Your task to perform on an android device: turn on javascript in the chrome app Image 0: 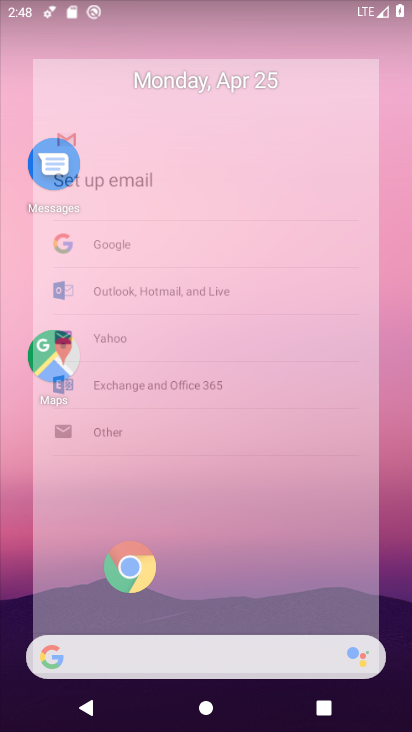
Step 0: drag from (238, 580) to (270, 323)
Your task to perform on an android device: turn on javascript in the chrome app Image 1: 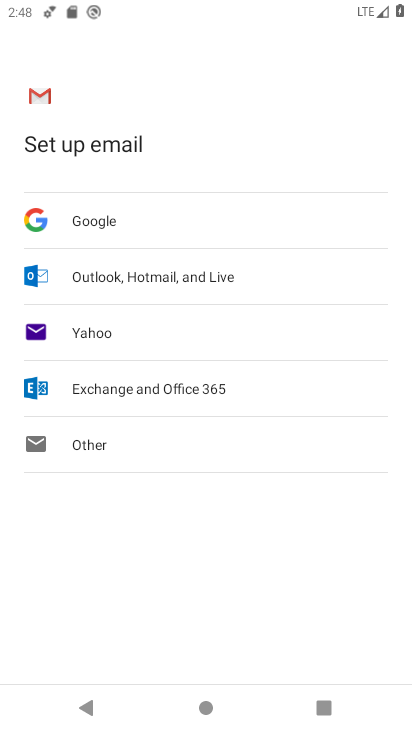
Step 1: press home button
Your task to perform on an android device: turn on javascript in the chrome app Image 2: 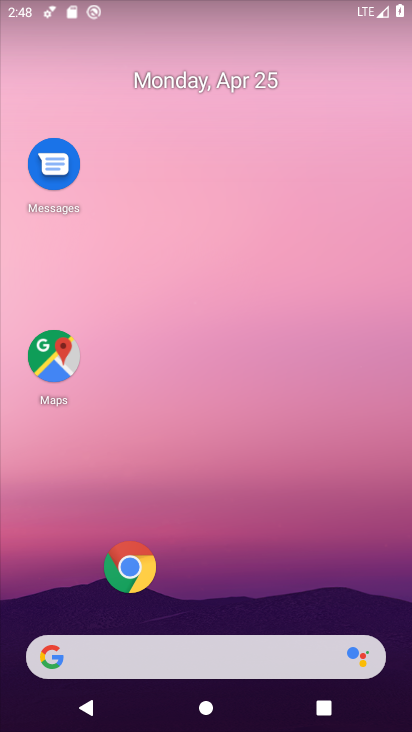
Step 2: drag from (260, 574) to (381, 258)
Your task to perform on an android device: turn on javascript in the chrome app Image 3: 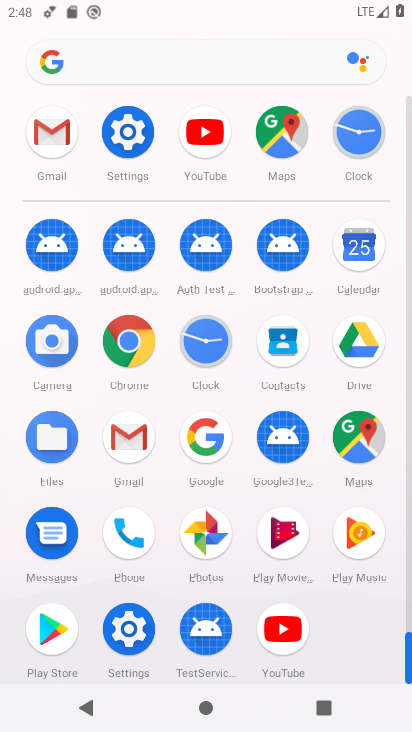
Step 3: click (123, 370)
Your task to perform on an android device: turn on javascript in the chrome app Image 4: 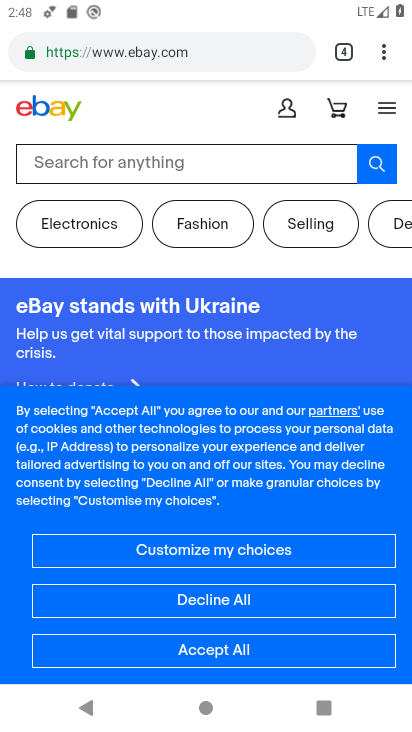
Step 4: click (381, 71)
Your task to perform on an android device: turn on javascript in the chrome app Image 5: 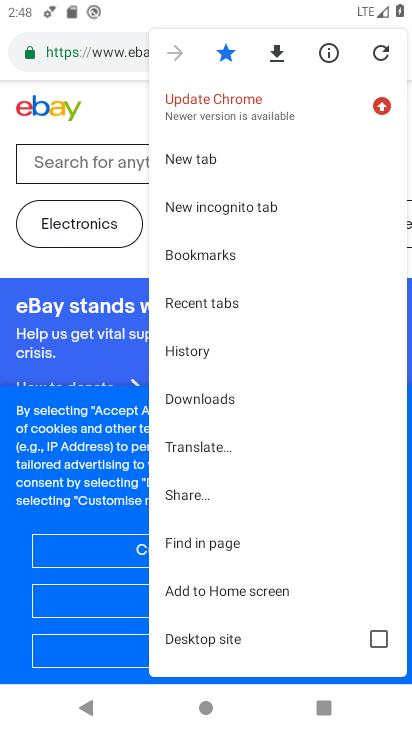
Step 5: drag from (257, 434) to (278, 255)
Your task to perform on an android device: turn on javascript in the chrome app Image 6: 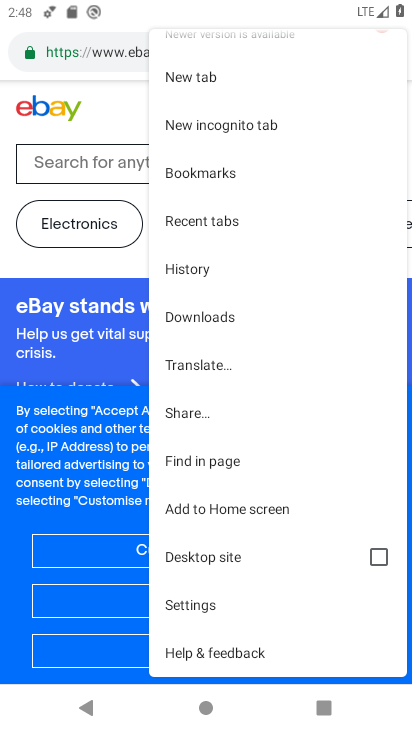
Step 6: click (231, 602)
Your task to perform on an android device: turn on javascript in the chrome app Image 7: 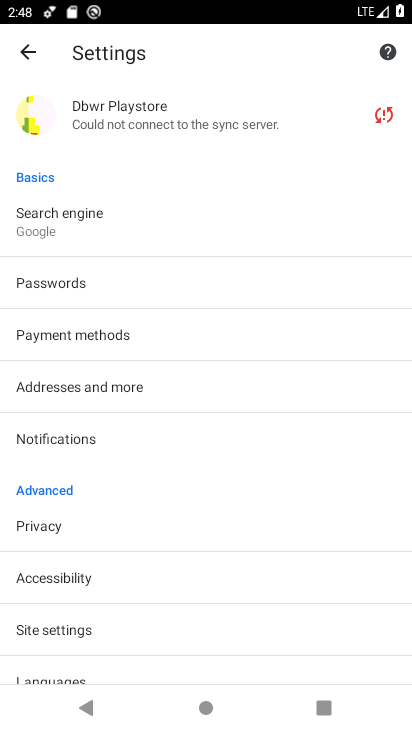
Step 7: drag from (231, 602) to (263, 436)
Your task to perform on an android device: turn on javascript in the chrome app Image 8: 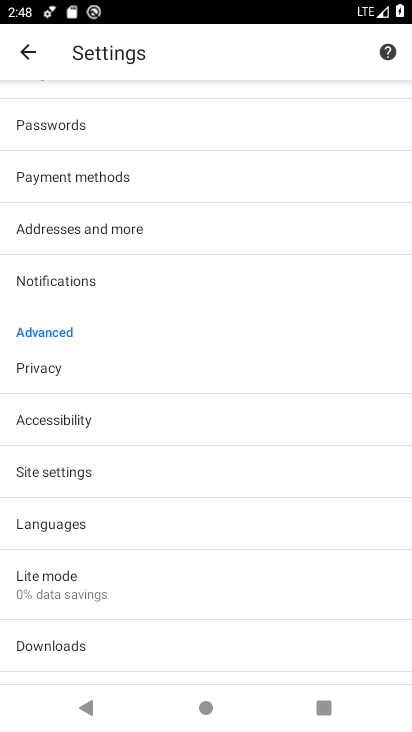
Step 8: click (143, 485)
Your task to perform on an android device: turn on javascript in the chrome app Image 9: 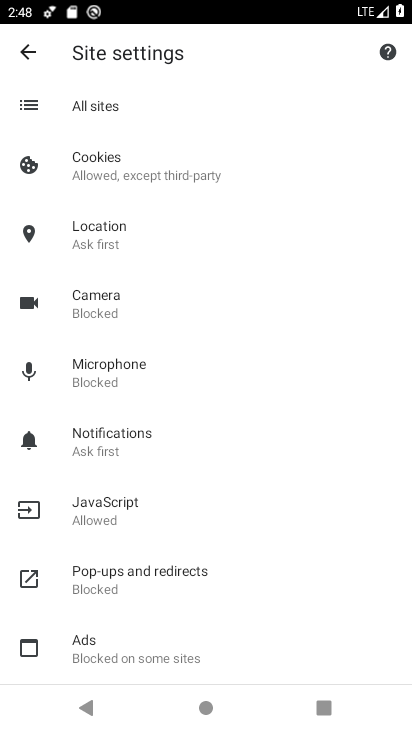
Step 9: click (138, 525)
Your task to perform on an android device: turn on javascript in the chrome app Image 10: 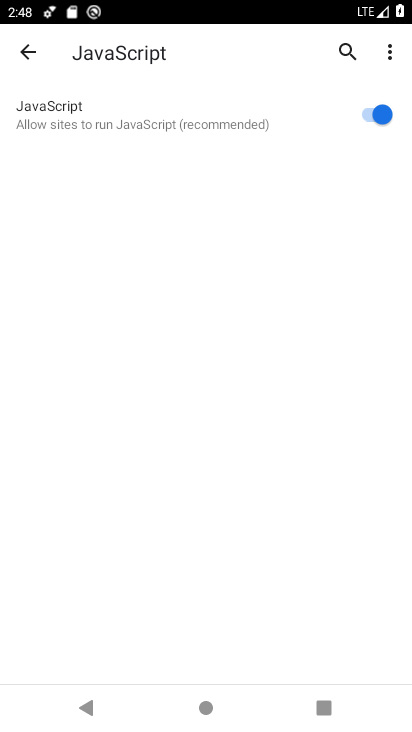
Step 10: task complete